Your task to perform on an android device: make emails show in primary in the gmail app Image 0: 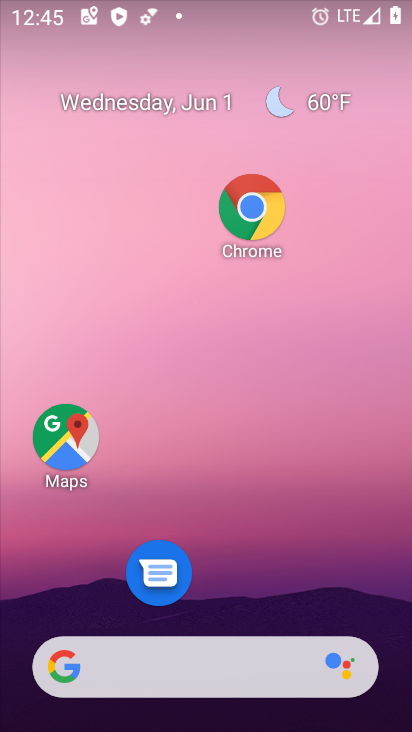
Step 0: drag from (207, 592) to (259, 142)
Your task to perform on an android device: make emails show in primary in the gmail app Image 1: 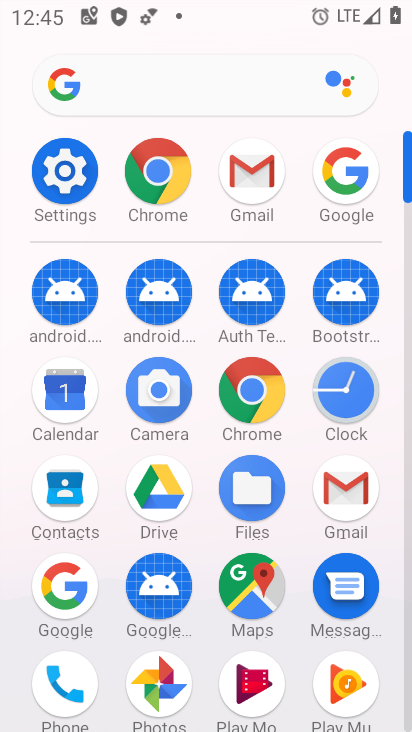
Step 1: click (268, 184)
Your task to perform on an android device: make emails show in primary in the gmail app Image 2: 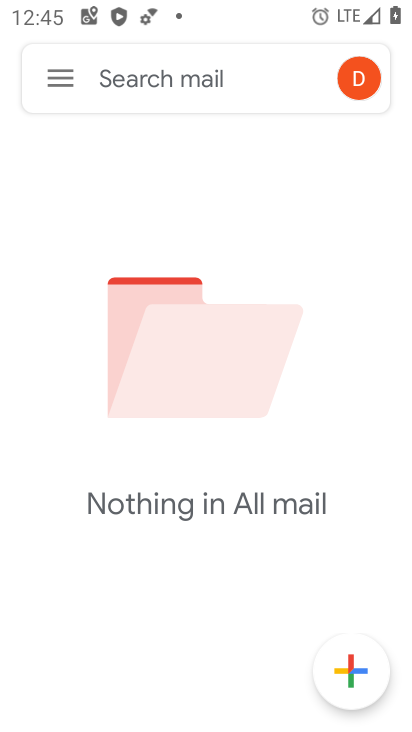
Step 2: click (49, 87)
Your task to perform on an android device: make emails show in primary in the gmail app Image 3: 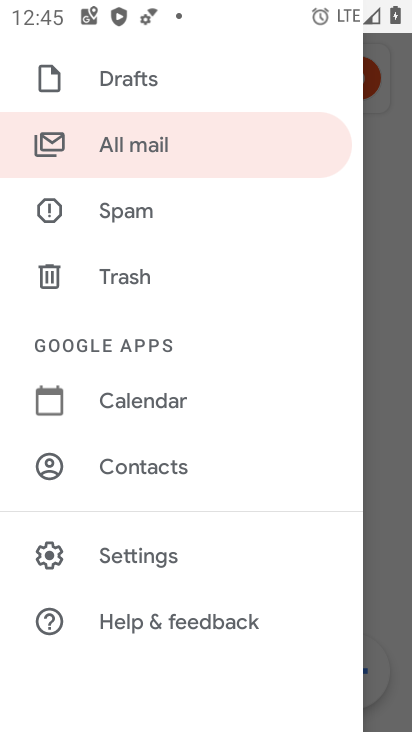
Step 3: click (174, 571)
Your task to perform on an android device: make emails show in primary in the gmail app Image 4: 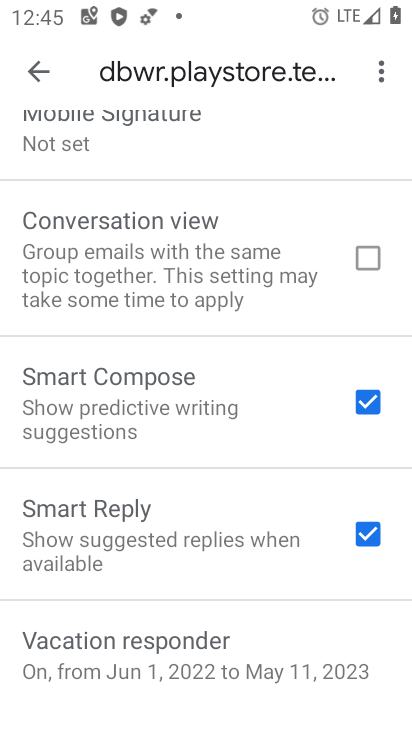
Step 4: drag from (166, 186) to (159, 514)
Your task to perform on an android device: make emails show in primary in the gmail app Image 5: 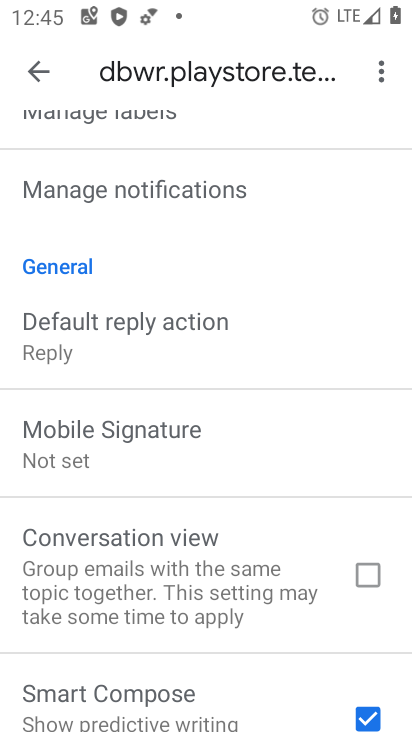
Step 5: drag from (169, 228) to (179, 546)
Your task to perform on an android device: make emails show in primary in the gmail app Image 6: 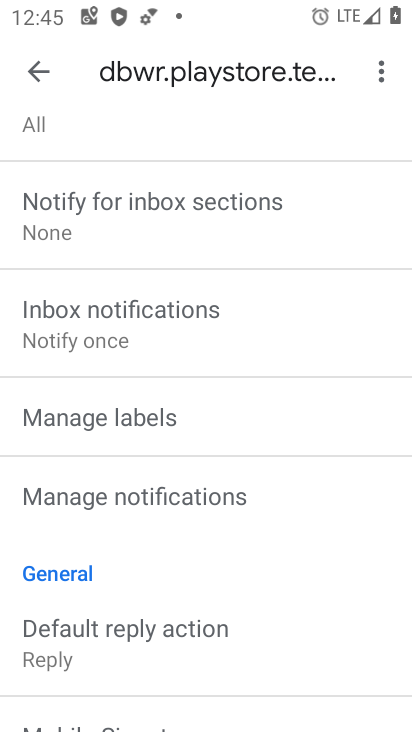
Step 6: drag from (192, 268) to (202, 521)
Your task to perform on an android device: make emails show in primary in the gmail app Image 7: 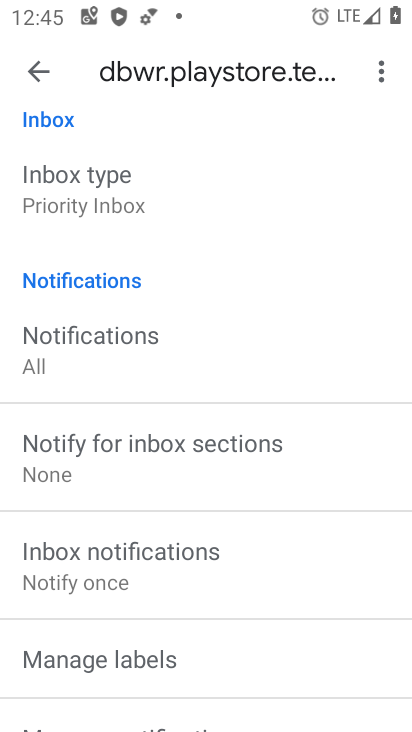
Step 7: drag from (187, 263) to (187, 511)
Your task to perform on an android device: make emails show in primary in the gmail app Image 8: 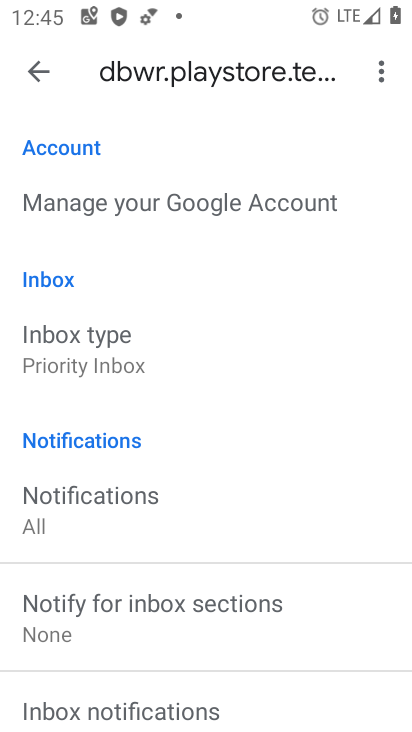
Step 8: drag from (194, 241) to (194, 371)
Your task to perform on an android device: make emails show in primary in the gmail app Image 9: 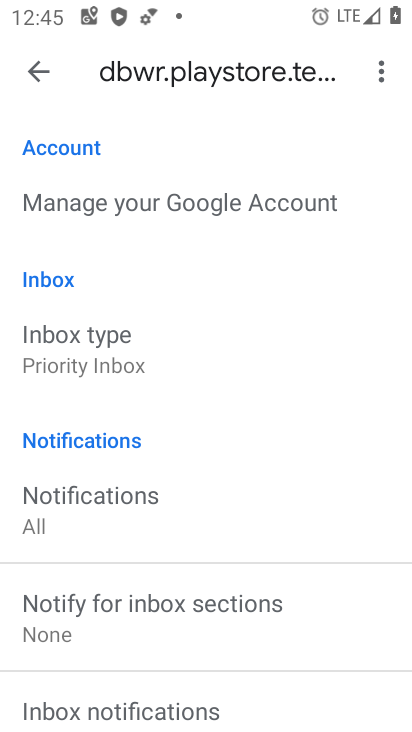
Step 9: click (132, 357)
Your task to perform on an android device: make emails show in primary in the gmail app Image 10: 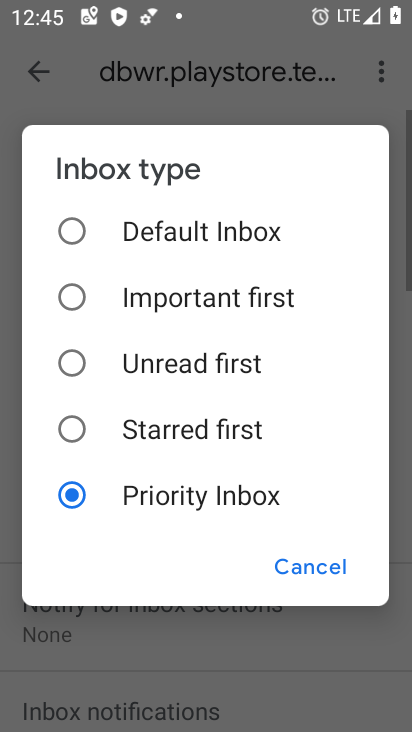
Step 10: click (157, 238)
Your task to perform on an android device: make emails show in primary in the gmail app Image 11: 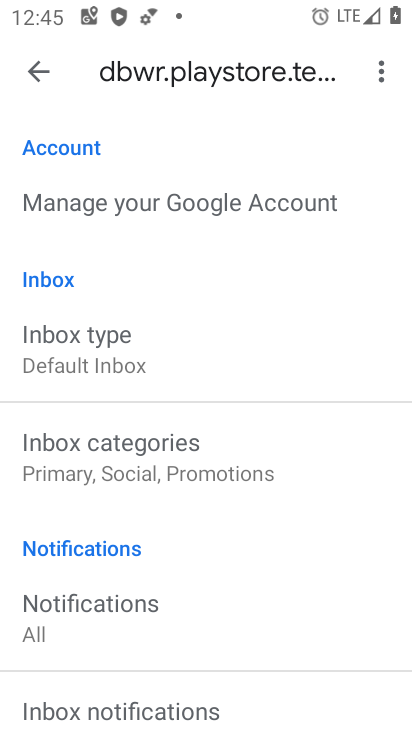
Step 11: click (155, 449)
Your task to perform on an android device: make emails show in primary in the gmail app Image 12: 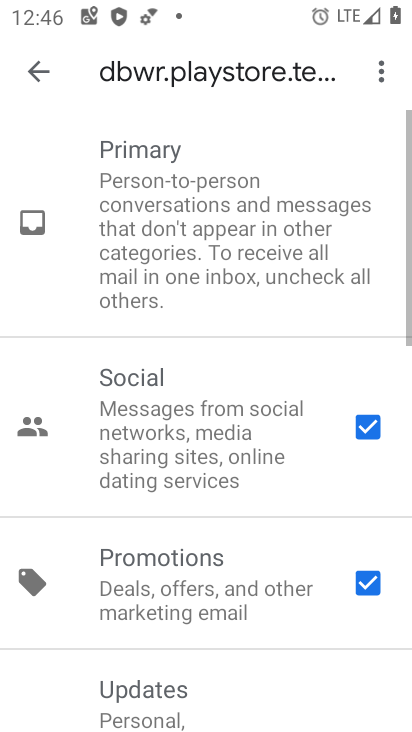
Step 12: task complete